Your task to perform on an android device: Show me recent news Image 0: 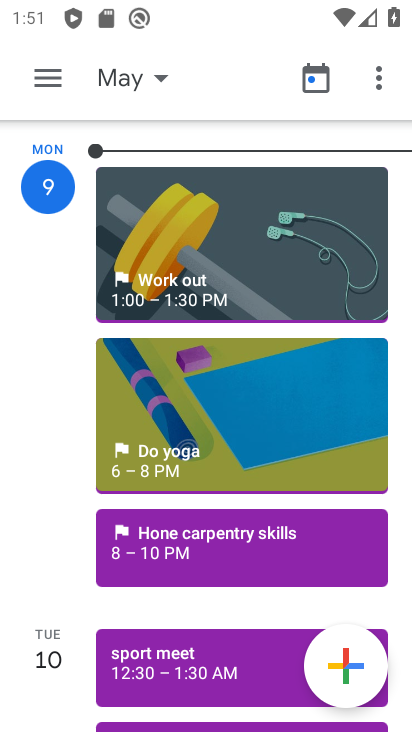
Step 0: press home button
Your task to perform on an android device: Show me recent news Image 1: 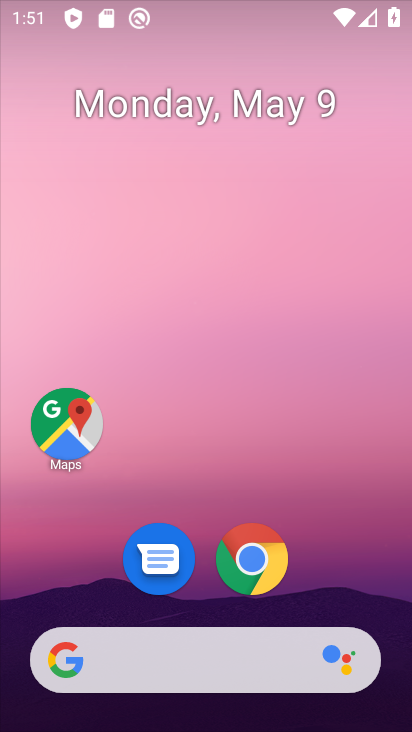
Step 1: drag from (371, 592) to (358, 124)
Your task to perform on an android device: Show me recent news Image 2: 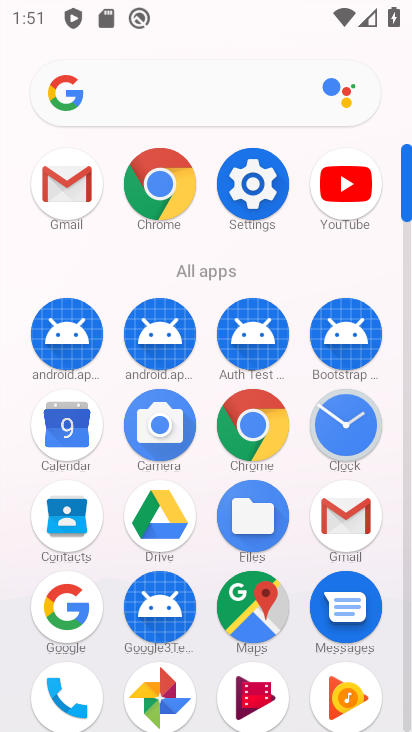
Step 2: click (250, 442)
Your task to perform on an android device: Show me recent news Image 3: 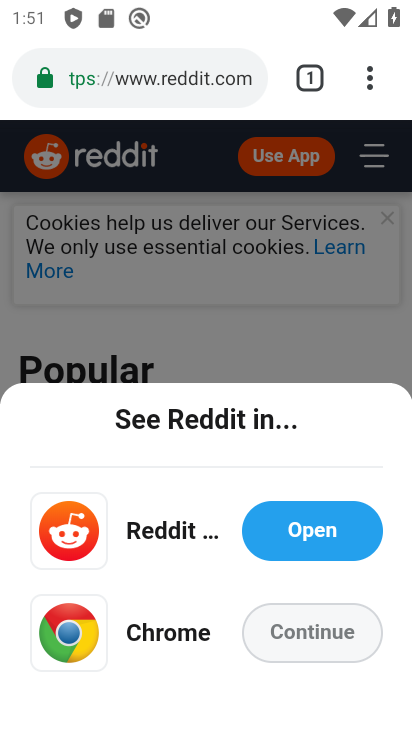
Step 3: click (223, 59)
Your task to perform on an android device: Show me recent news Image 4: 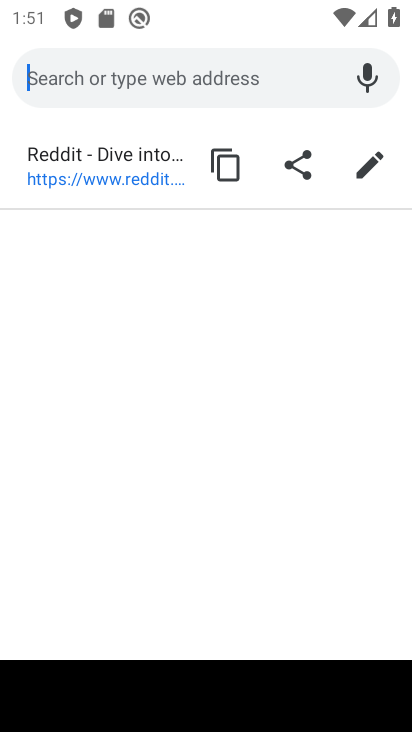
Step 4: type "recent news"
Your task to perform on an android device: Show me recent news Image 5: 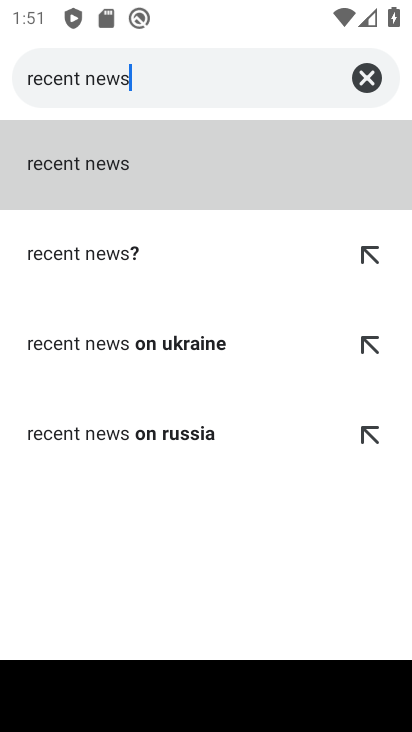
Step 5: click (62, 170)
Your task to perform on an android device: Show me recent news Image 6: 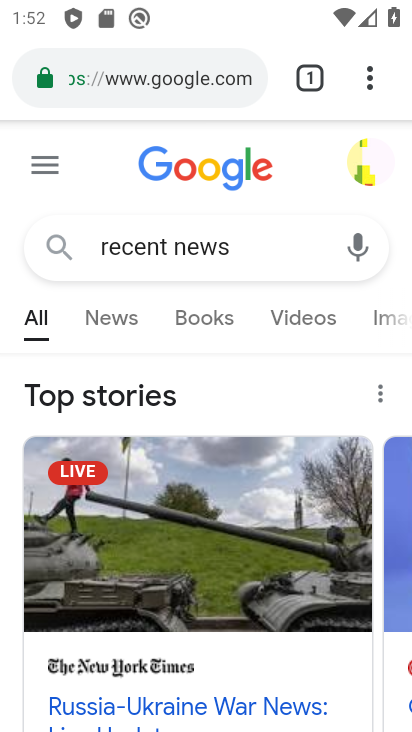
Step 6: task complete